Your task to perform on an android device: turn on showing notifications on the lock screen Image 0: 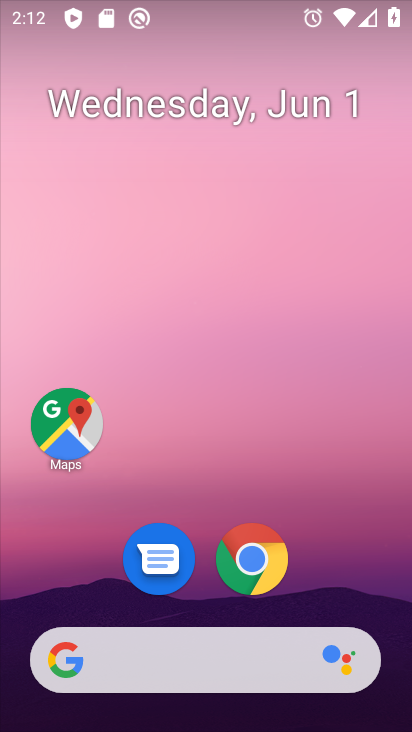
Step 0: press home button
Your task to perform on an android device: turn on showing notifications on the lock screen Image 1: 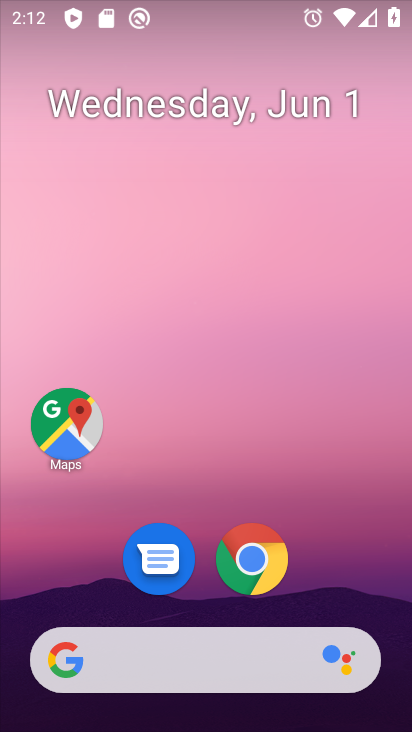
Step 1: drag from (314, 608) to (292, 149)
Your task to perform on an android device: turn on showing notifications on the lock screen Image 2: 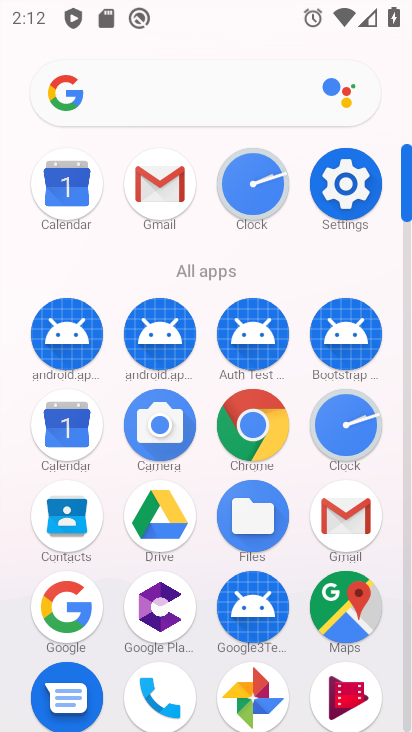
Step 2: click (341, 180)
Your task to perform on an android device: turn on showing notifications on the lock screen Image 3: 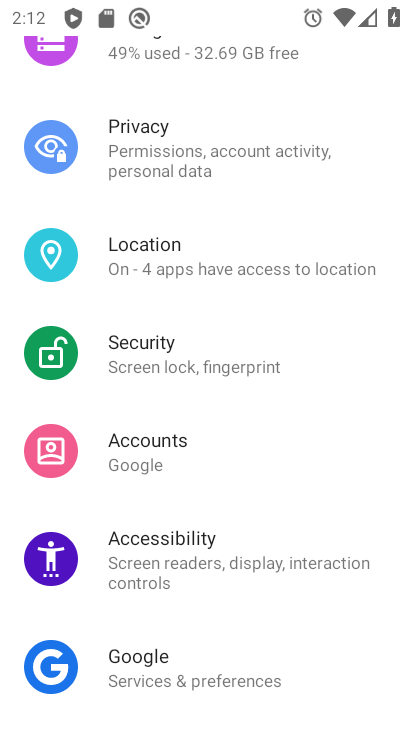
Step 3: drag from (219, 102) to (207, 520)
Your task to perform on an android device: turn on showing notifications on the lock screen Image 4: 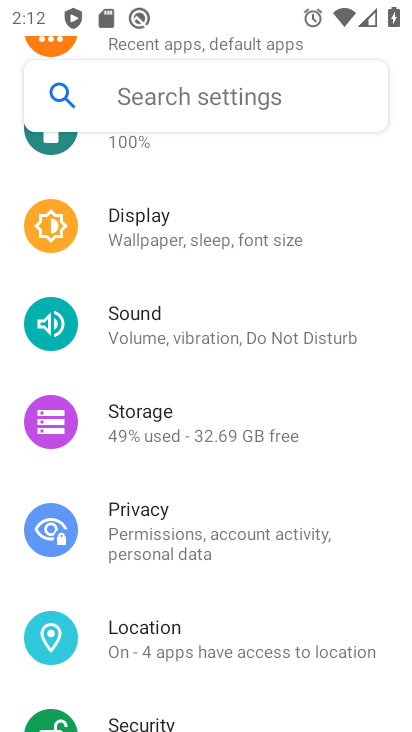
Step 4: drag from (230, 182) to (241, 506)
Your task to perform on an android device: turn on showing notifications on the lock screen Image 5: 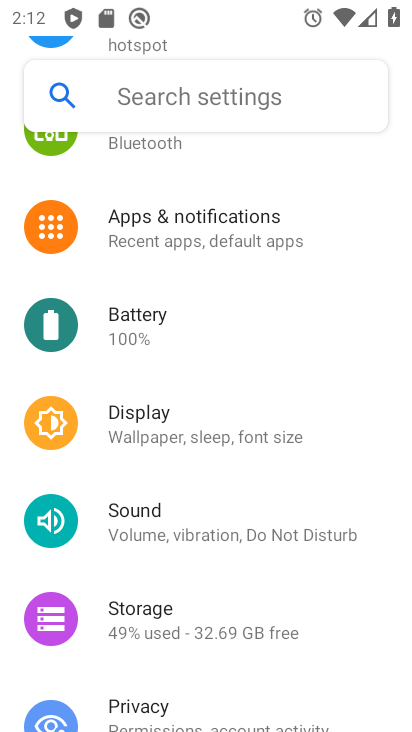
Step 5: click (180, 237)
Your task to perform on an android device: turn on showing notifications on the lock screen Image 6: 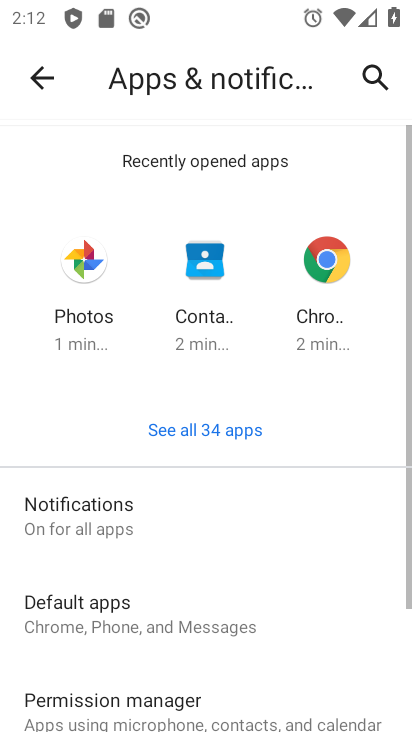
Step 6: click (90, 500)
Your task to perform on an android device: turn on showing notifications on the lock screen Image 7: 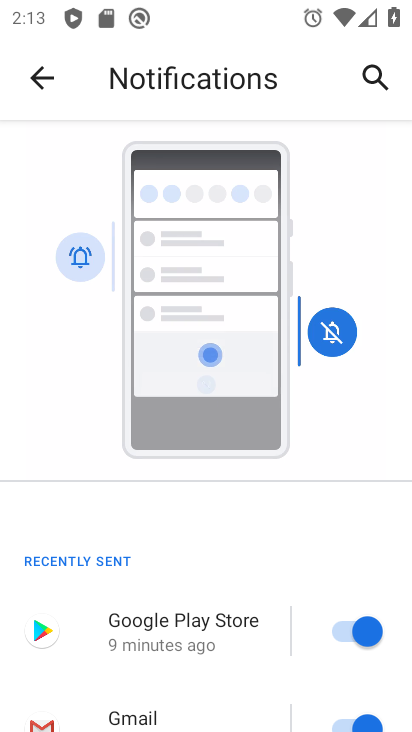
Step 7: drag from (336, 510) to (390, 104)
Your task to perform on an android device: turn on showing notifications on the lock screen Image 8: 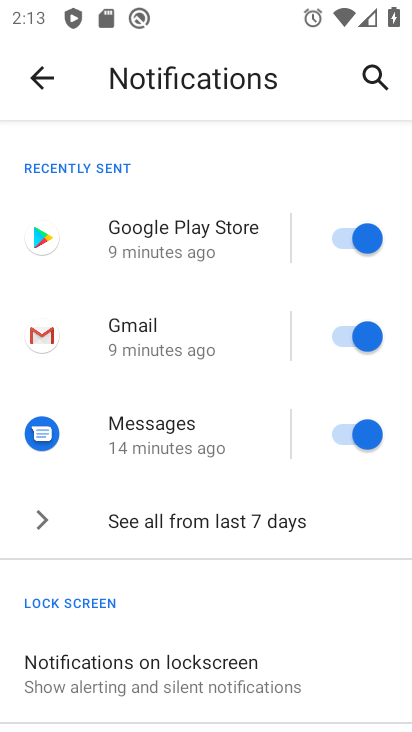
Step 8: drag from (243, 612) to (242, 305)
Your task to perform on an android device: turn on showing notifications on the lock screen Image 9: 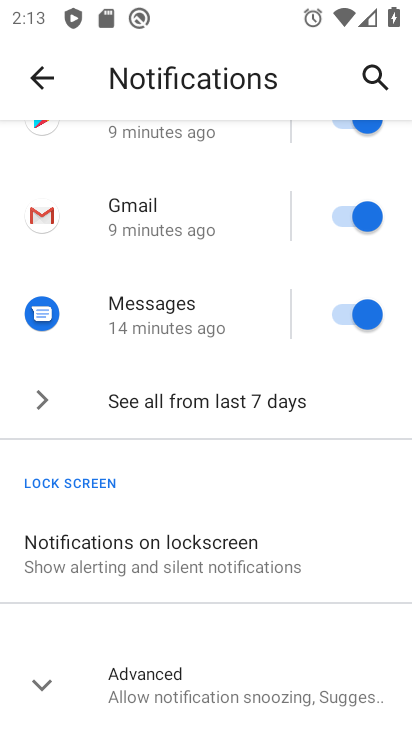
Step 9: click (139, 562)
Your task to perform on an android device: turn on showing notifications on the lock screen Image 10: 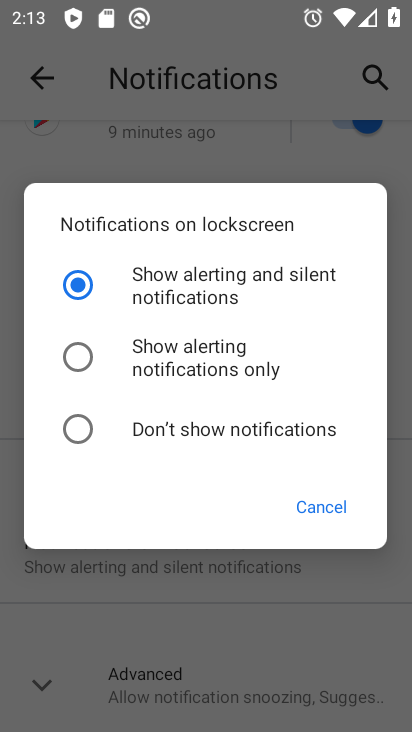
Step 10: click (311, 517)
Your task to perform on an android device: turn on showing notifications on the lock screen Image 11: 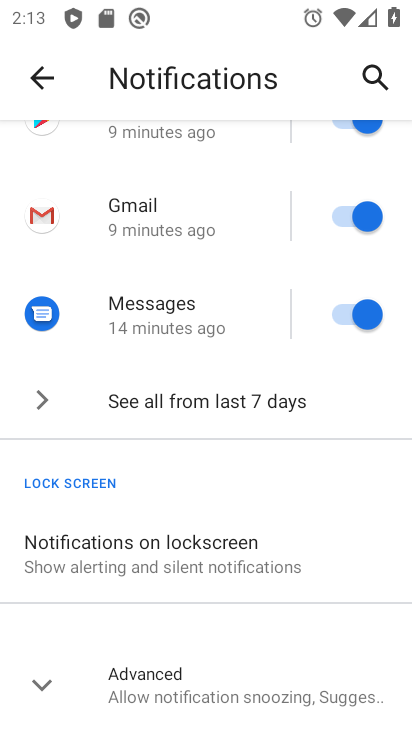
Step 11: click (174, 553)
Your task to perform on an android device: turn on showing notifications on the lock screen Image 12: 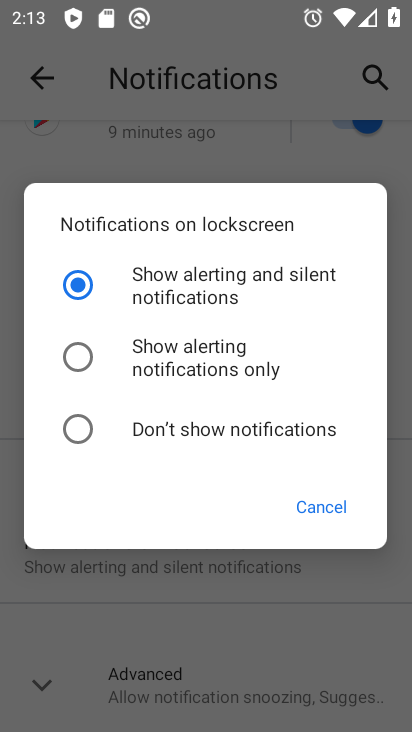
Step 12: click (329, 508)
Your task to perform on an android device: turn on showing notifications on the lock screen Image 13: 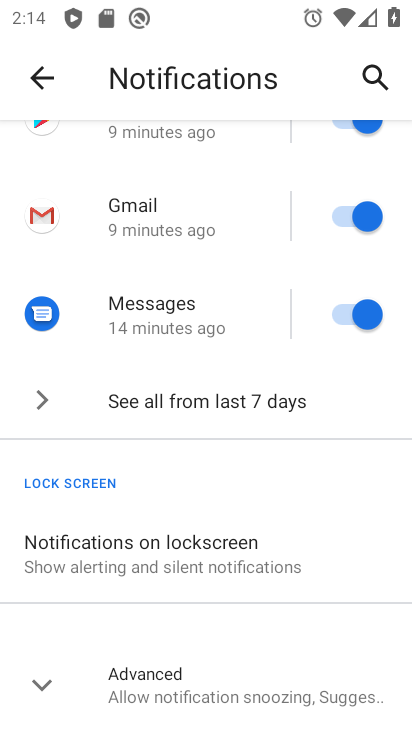
Step 13: click (159, 553)
Your task to perform on an android device: turn on showing notifications on the lock screen Image 14: 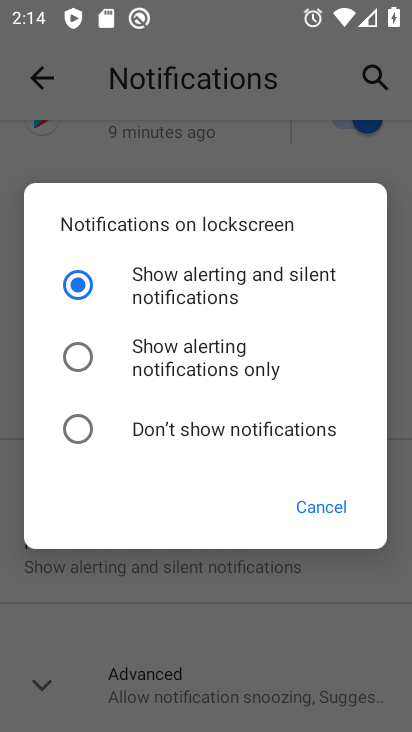
Step 14: task complete